Your task to perform on an android device: Open Google Chrome and open the bookmarks view Image 0: 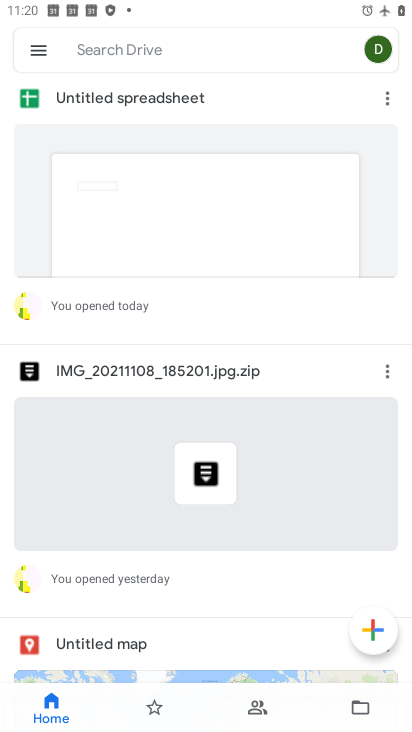
Step 0: press home button
Your task to perform on an android device: Open Google Chrome and open the bookmarks view Image 1: 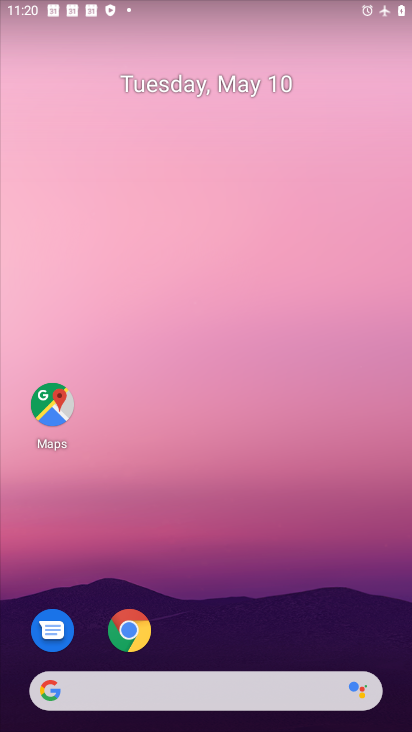
Step 1: click (125, 638)
Your task to perform on an android device: Open Google Chrome and open the bookmarks view Image 2: 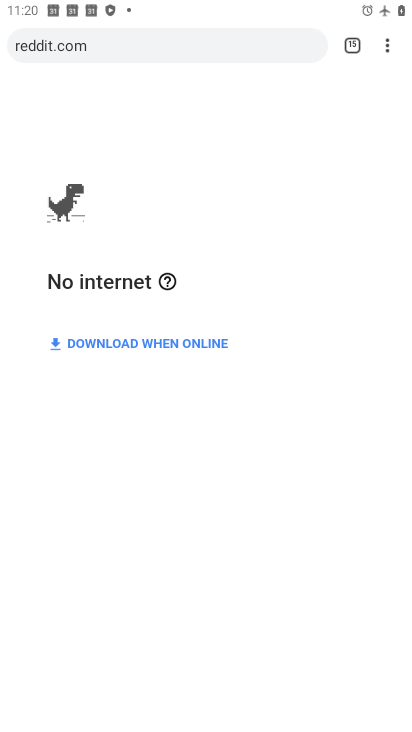
Step 2: click (385, 41)
Your task to perform on an android device: Open Google Chrome and open the bookmarks view Image 3: 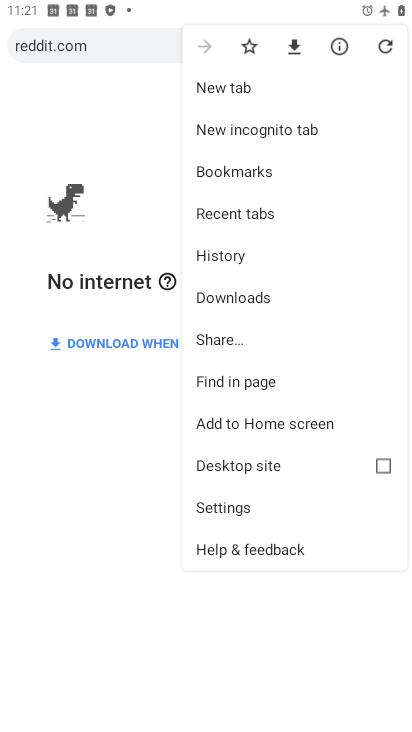
Step 3: click (251, 165)
Your task to perform on an android device: Open Google Chrome and open the bookmarks view Image 4: 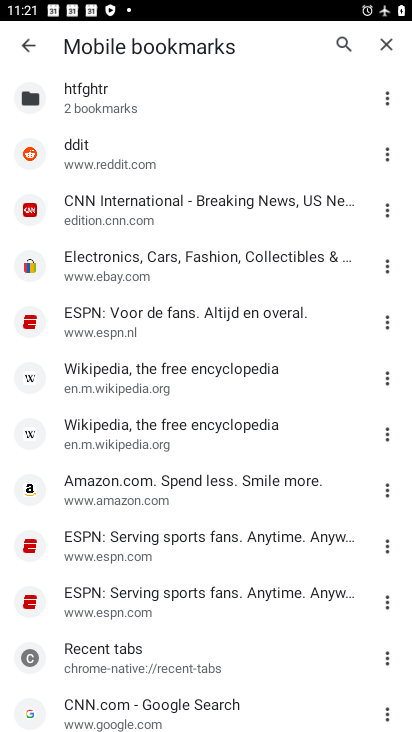
Step 4: task complete